Your task to perform on an android device: Open battery settings Image 0: 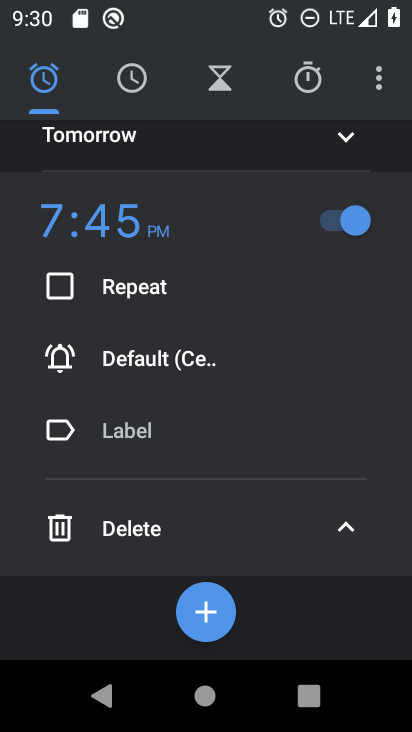
Step 0: press home button
Your task to perform on an android device: Open battery settings Image 1: 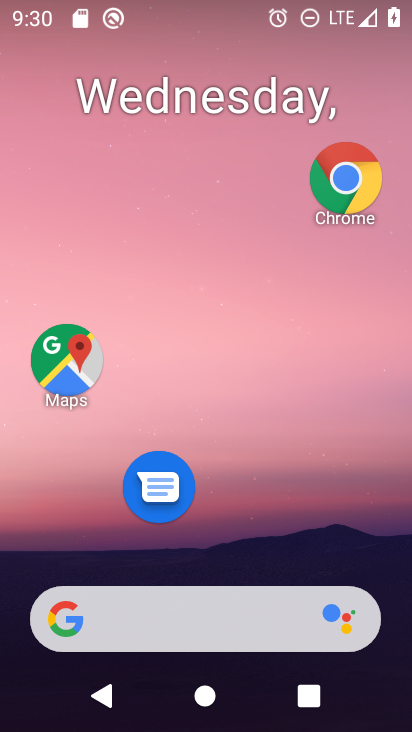
Step 1: drag from (232, 553) to (252, 52)
Your task to perform on an android device: Open battery settings Image 2: 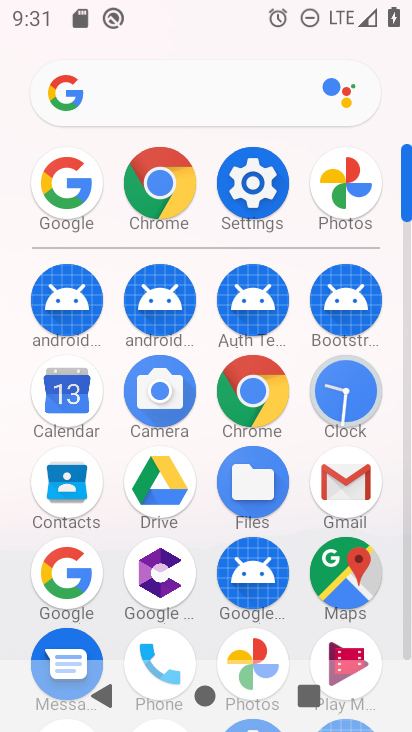
Step 2: click (269, 198)
Your task to perform on an android device: Open battery settings Image 3: 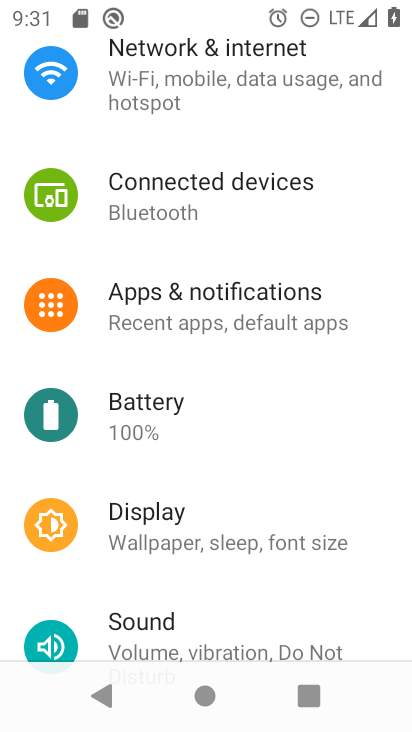
Step 3: click (249, 411)
Your task to perform on an android device: Open battery settings Image 4: 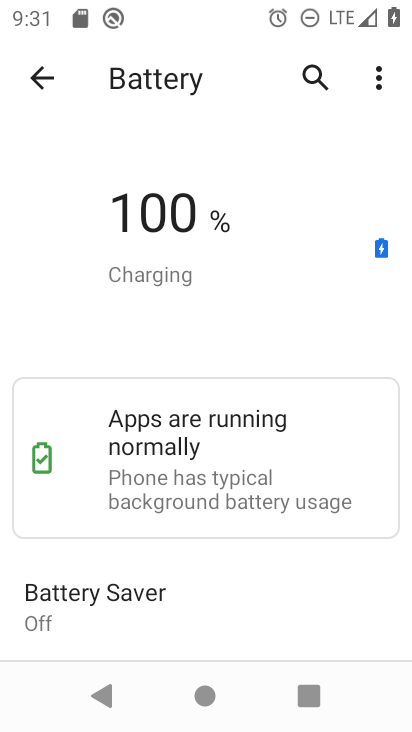
Step 4: task complete